Your task to perform on an android device: Open accessibility settings Image 0: 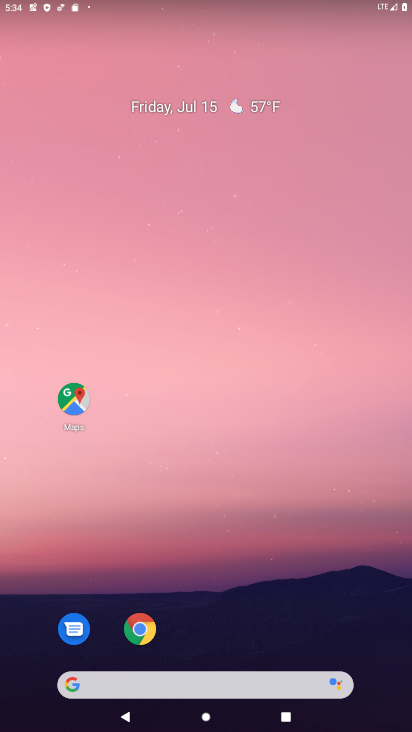
Step 0: press home button
Your task to perform on an android device: Open accessibility settings Image 1: 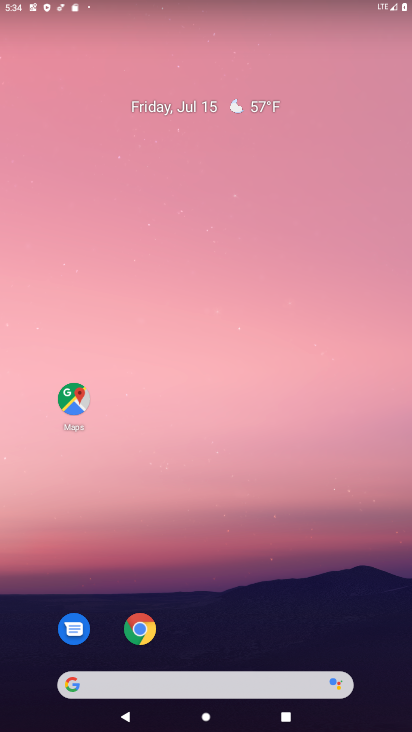
Step 1: drag from (210, 658) to (320, 108)
Your task to perform on an android device: Open accessibility settings Image 2: 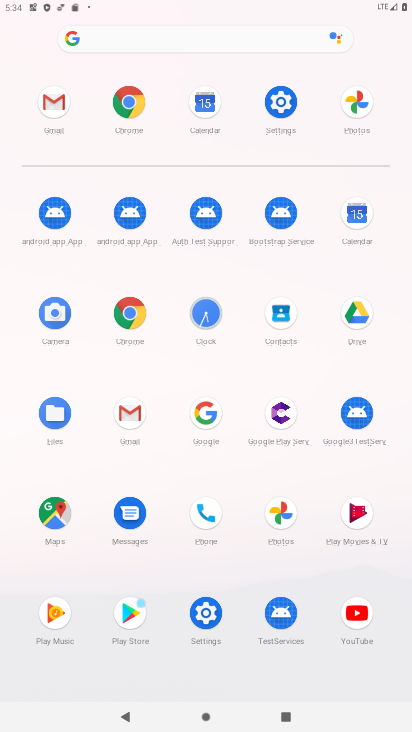
Step 2: click (290, 101)
Your task to perform on an android device: Open accessibility settings Image 3: 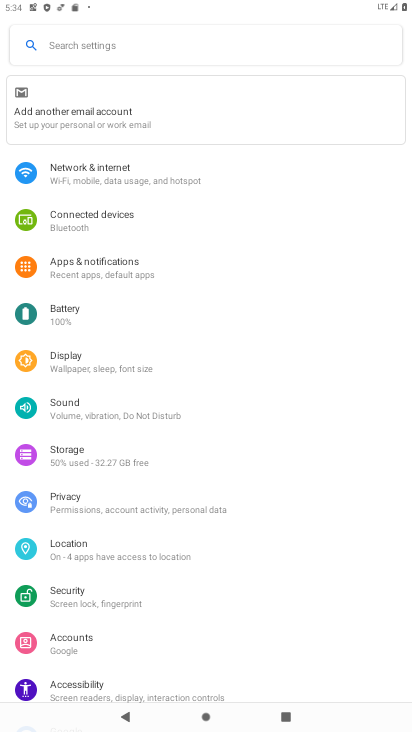
Step 3: click (72, 689)
Your task to perform on an android device: Open accessibility settings Image 4: 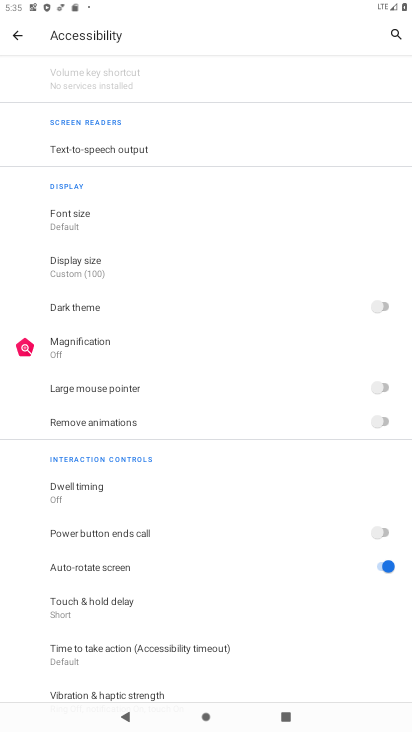
Step 4: task complete